Your task to perform on an android device: Go to Wikipedia Image 0: 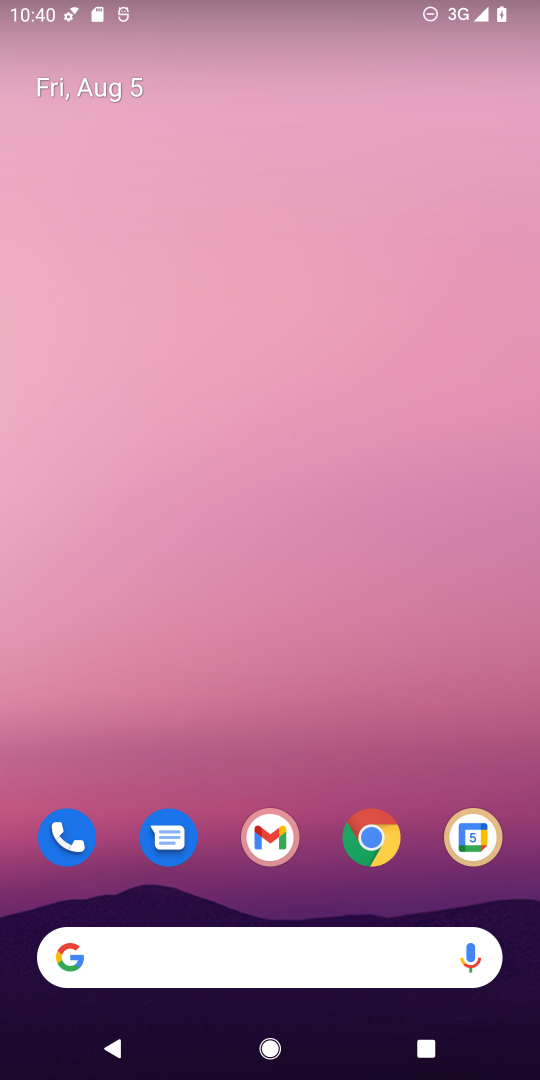
Step 0: click (378, 828)
Your task to perform on an android device: Go to Wikipedia Image 1: 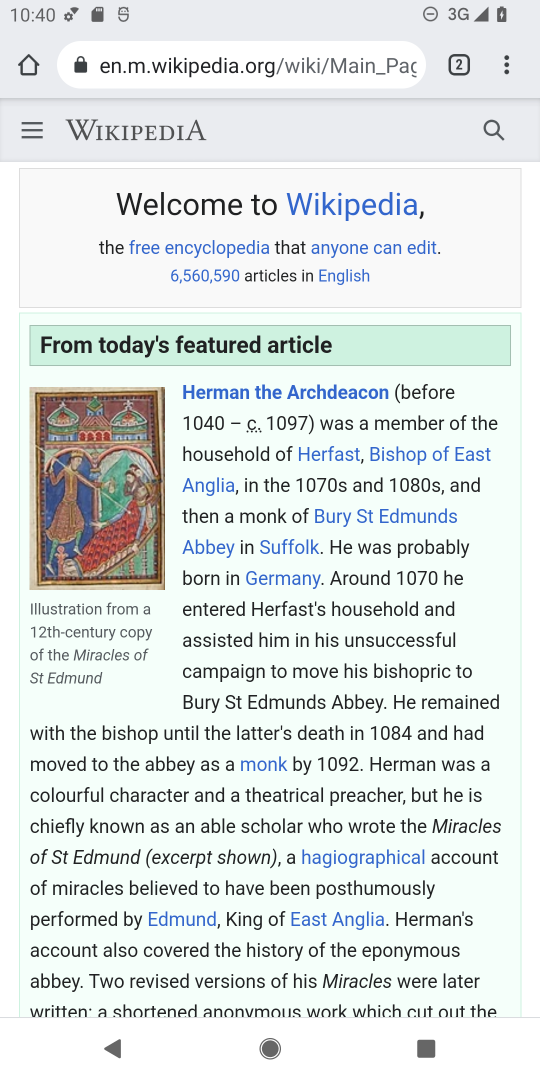
Step 1: task complete